Your task to perform on an android device: Go to Wikipedia Image 0: 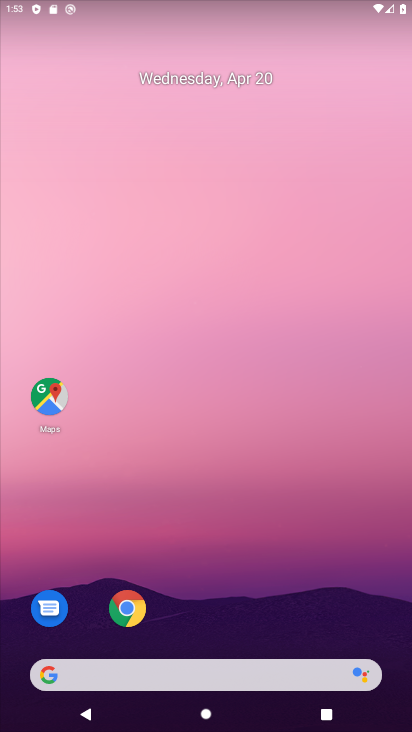
Step 0: click (134, 606)
Your task to perform on an android device: Go to Wikipedia Image 1: 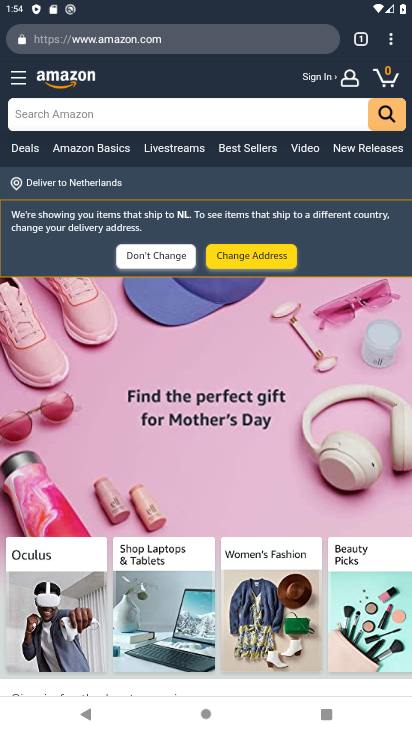
Step 1: press back button
Your task to perform on an android device: Go to Wikipedia Image 2: 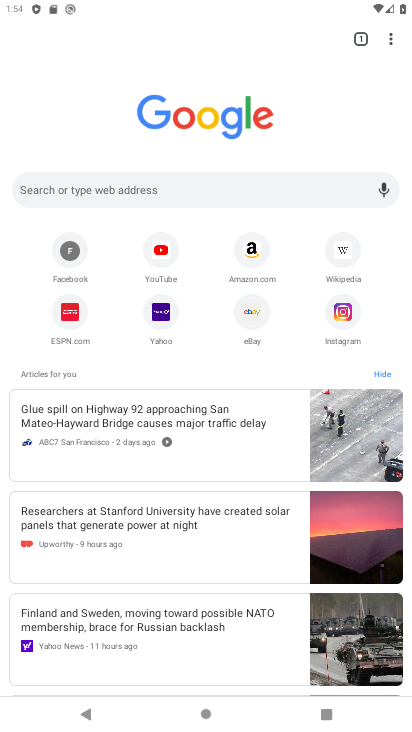
Step 2: click (253, 195)
Your task to perform on an android device: Go to Wikipedia Image 3: 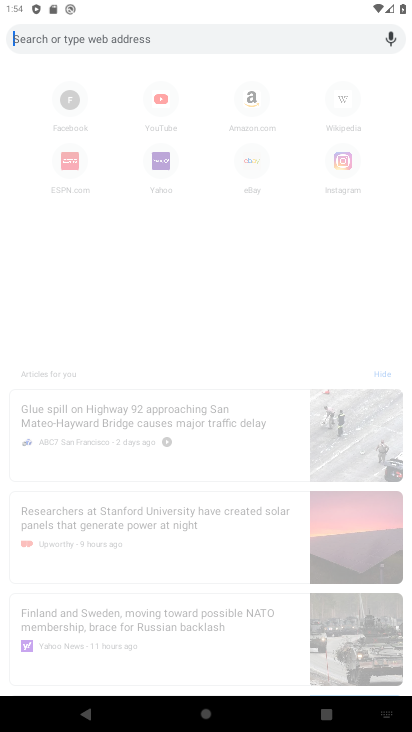
Step 3: type "wikiped"
Your task to perform on an android device: Go to Wikipedia Image 4: 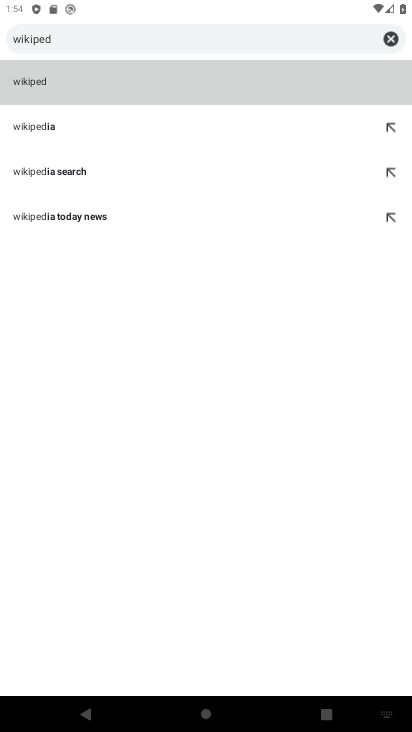
Step 4: click (83, 131)
Your task to perform on an android device: Go to Wikipedia Image 5: 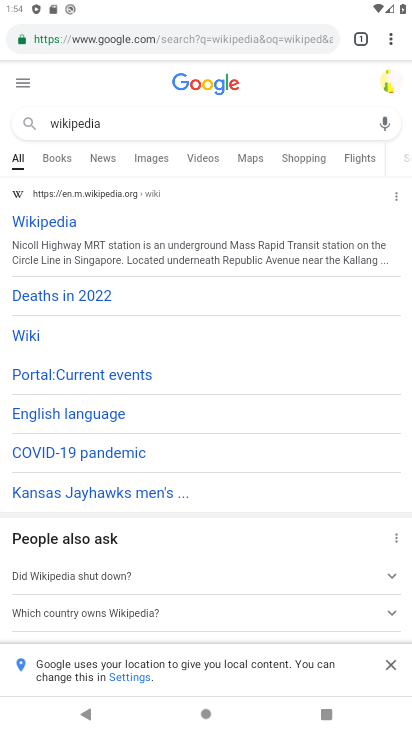
Step 5: click (39, 220)
Your task to perform on an android device: Go to Wikipedia Image 6: 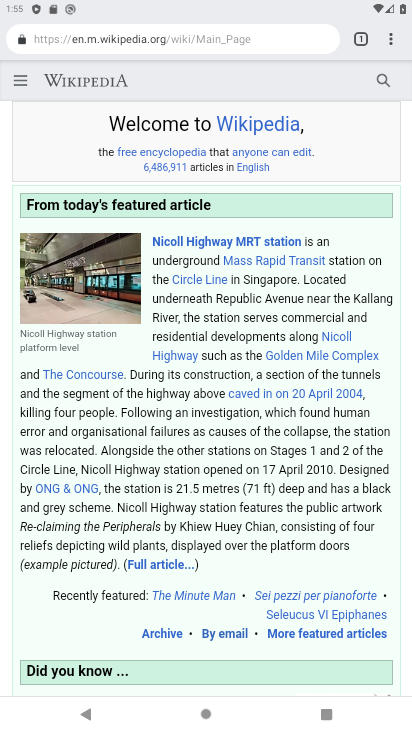
Step 6: task complete